Your task to perform on an android device: Open Maps and search for coffee Image 0: 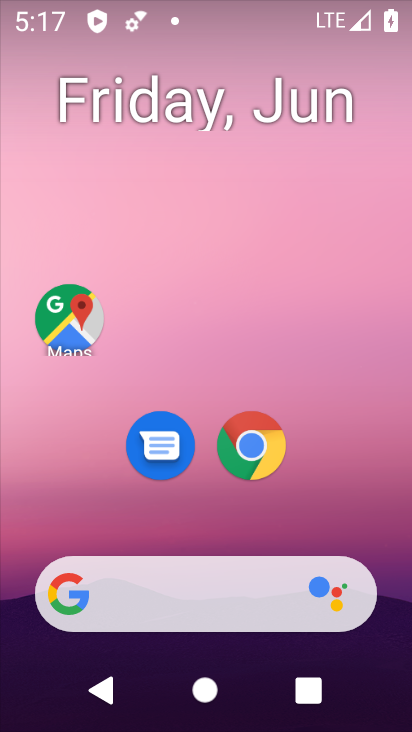
Step 0: drag from (387, 603) to (285, 65)
Your task to perform on an android device: Open Maps and search for coffee Image 1: 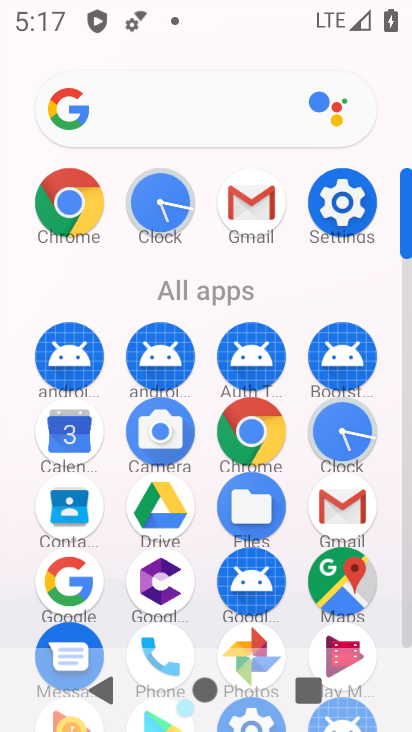
Step 1: drag from (9, 584) to (26, 213)
Your task to perform on an android device: Open Maps and search for coffee Image 2: 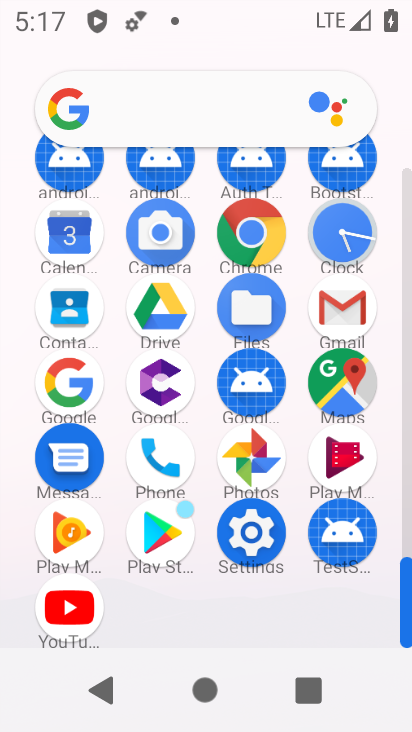
Step 2: click (337, 374)
Your task to perform on an android device: Open Maps and search for coffee Image 3: 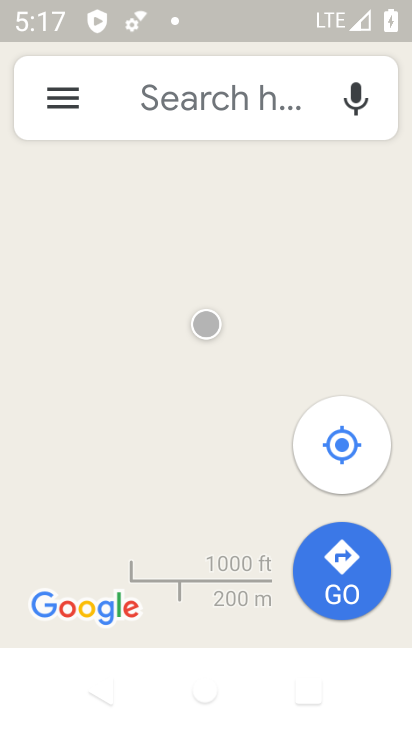
Step 3: click (294, 89)
Your task to perform on an android device: Open Maps and search for coffee Image 4: 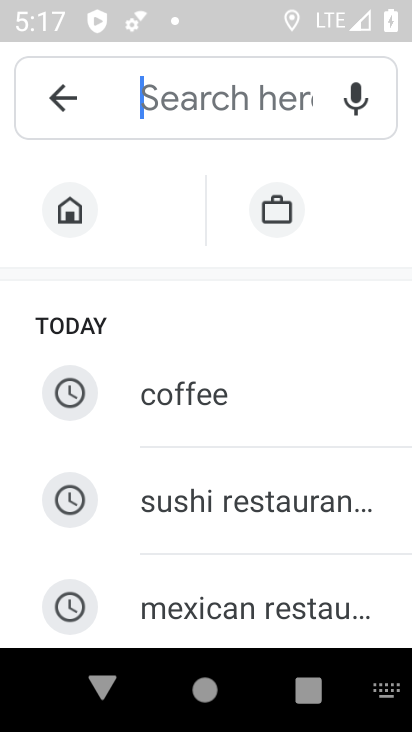
Step 4: click (223, 393)
Your task to perform on an android device: Open Maps and search for coffee Image 5: 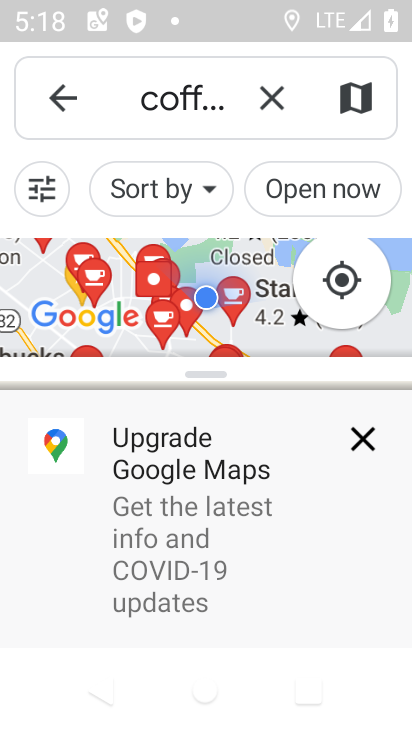
Step 5: task complete